Your task to perform on an android device: delete a single message in the gmail app Image 0: 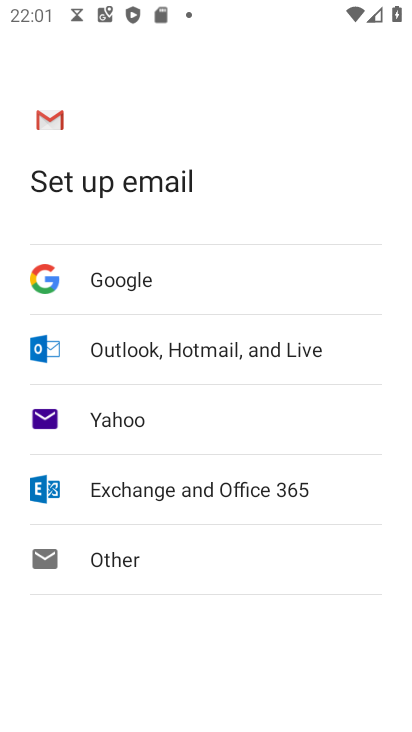
Step 0: press home button
Your task to perform on an android device: delete a single message in the gmail app Image 1: 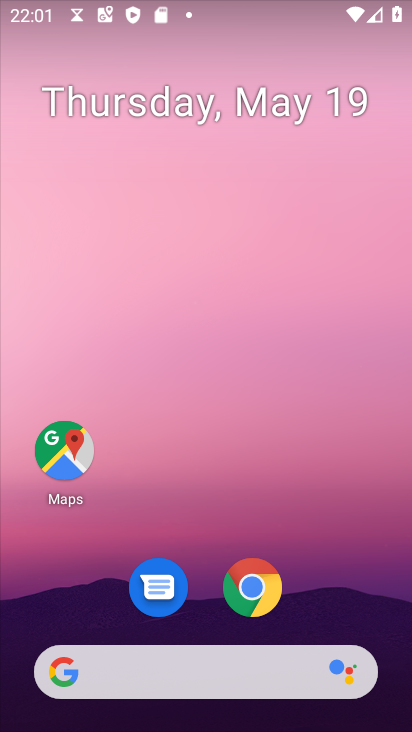
Step 1: drag from (203, 566) to (214, 149)
Your task to perform on an android device: delete a single message in the gmail app Image 2: 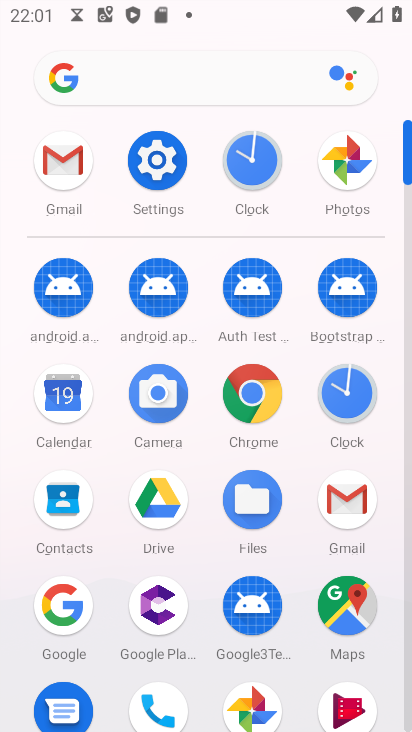
Step 2: click (64, 161)
Your task to perform on an android device: delete a single message in the gmail app Image 3: 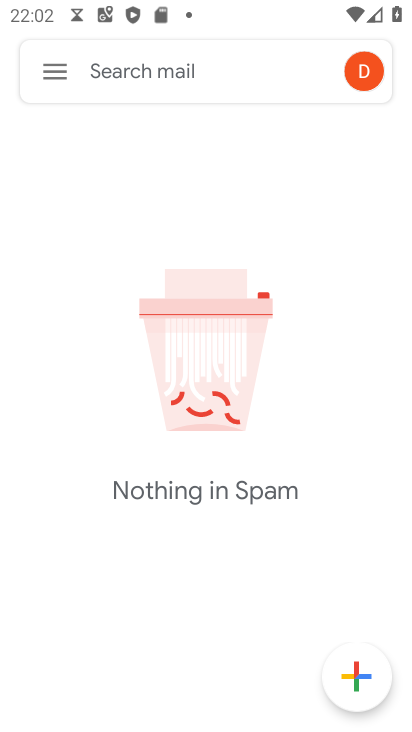
Step 3: click (59, 79)
Your task to perform on an android device: delete a single message in the gmail app Image 4: 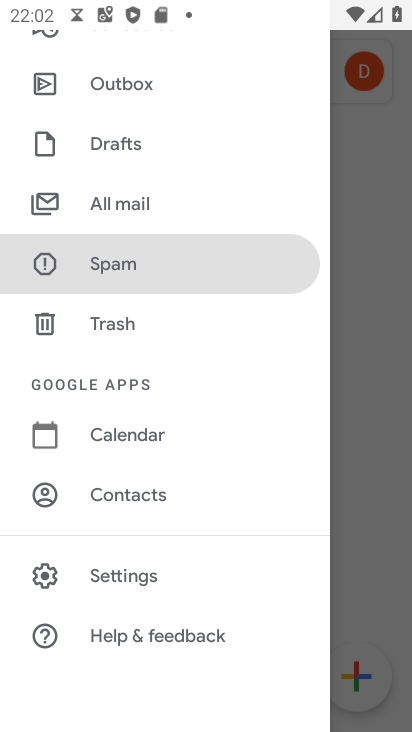
Step 4: click (100, 209)
Your task to perform on an android device: delete a single message in the gmail app Image 5: 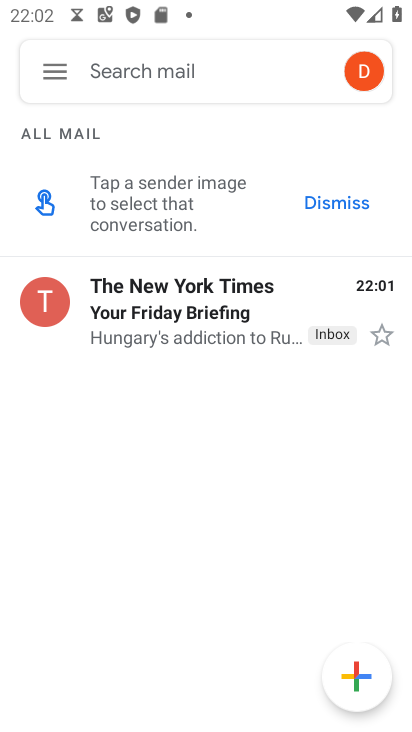
Step 5: click (39, 302)
Your task to perform on an android device: delete a single message in the gmail app Image 6: 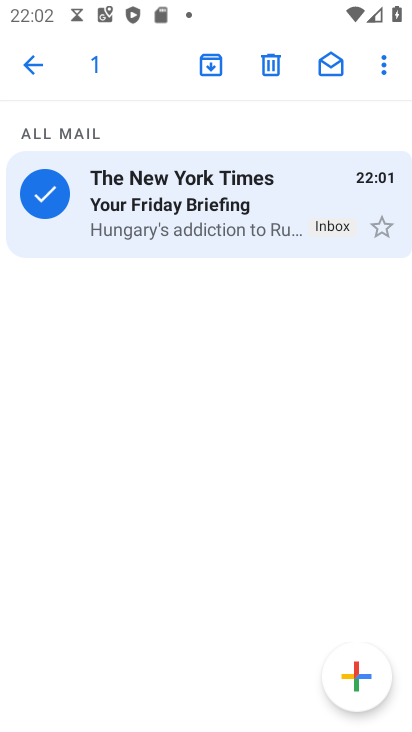
Step 6: click (258, 54)
Your task to perform on an android device: delete a single message in the gmail app Image 7: 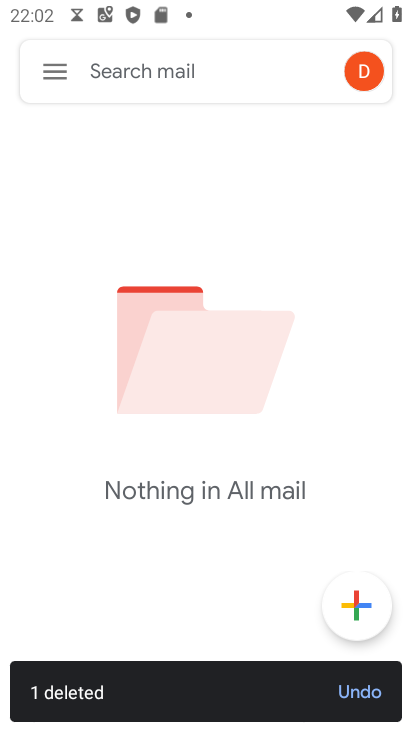
Step 7: task complete